Your task to perform on an android device: find snoozed emails in the gmail app Image 0: 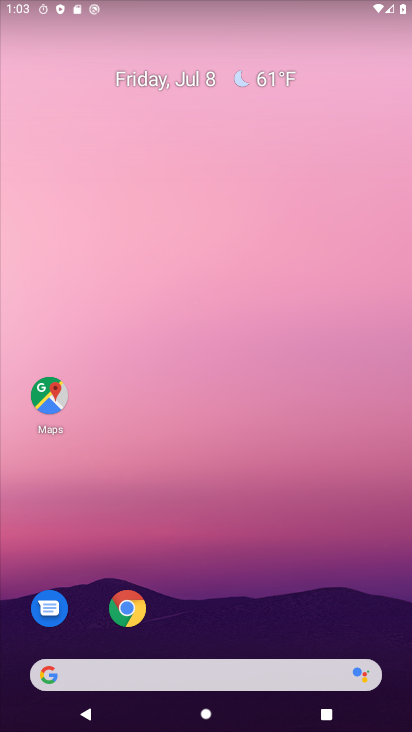
Step 0: drag from (239, 584) to (272, 110)
Your task to perform on an android device: find snoozed emails in the gmail app Image 1: 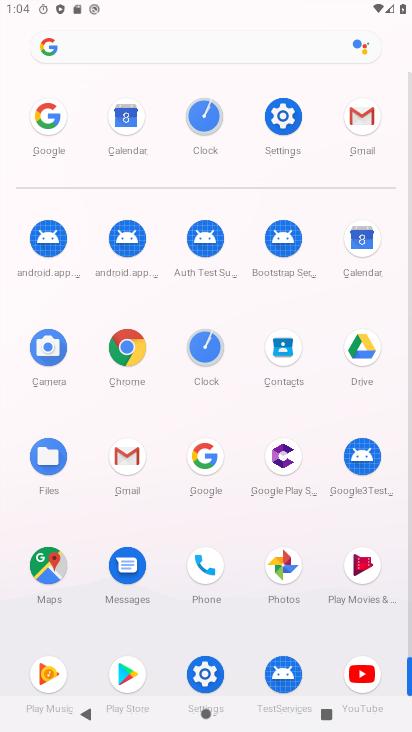
Step 1: click (369, 113)
Your task to perform on an android device: find snoozed emails in the gmail app Image 2: 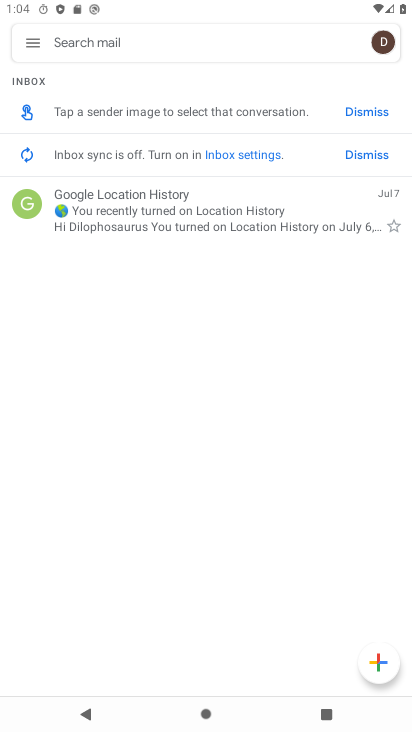
Step 2: click (34, 47)
Your task to perform on an android device: find snoozed emails in the gmail app Image 3: 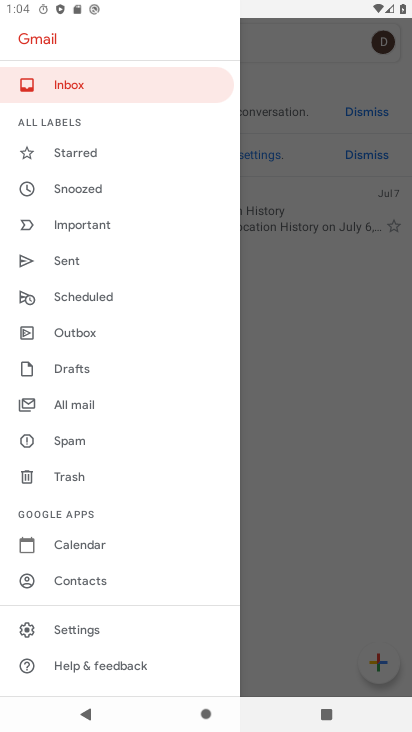
Step 3: click (86, 195)
Your task to perform on an android device: find snoozed emails in the gmail app Image 4: 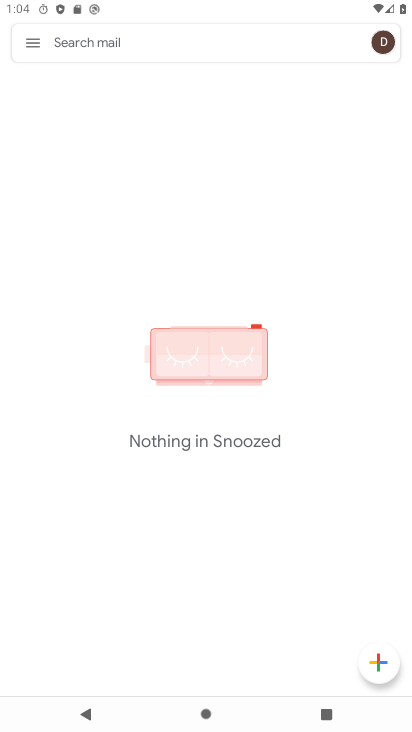
Step 4: task complete